Your task to perform on an android device: Go to Google maps Image 0: 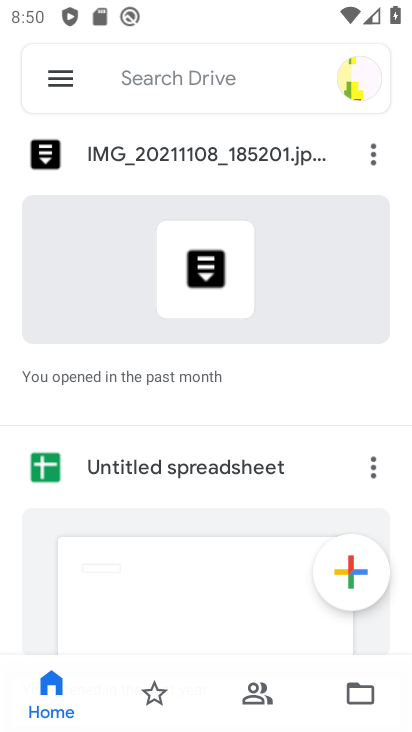
Step 0: press home button
Your task to perform on an android device: Go to Google maps Image 1: 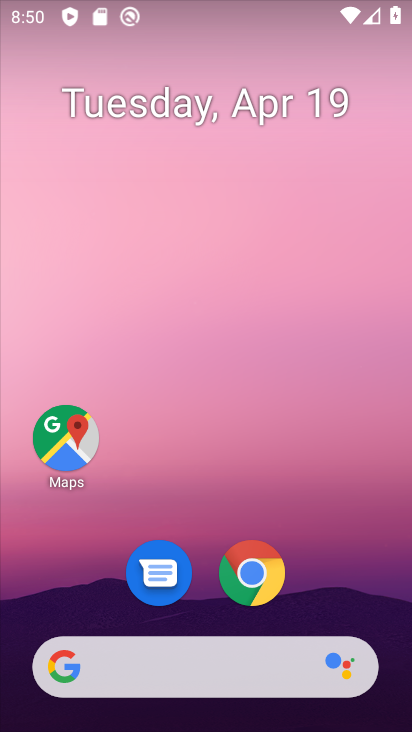
Step 1: click (67, 442)
Your task to perform on an android device: Go to Google maps Image 2: 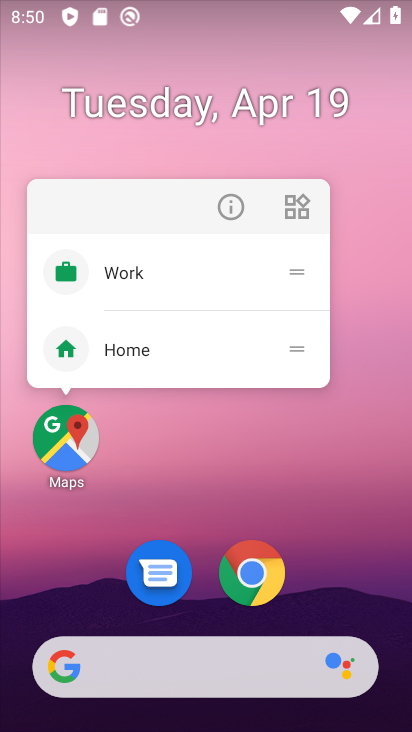
Step 2: click (67, 442)
Your task to perform on an android device: Go to Google maps Image 3: 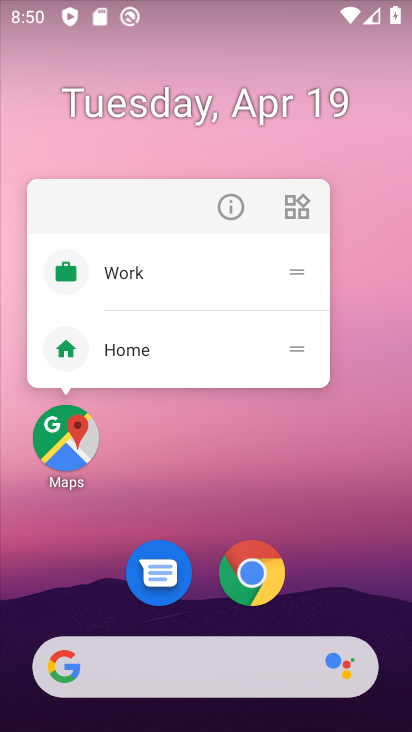
Step 3: click (67, 437)
Your task to perform on an android device: Go to Google maps Image 4: 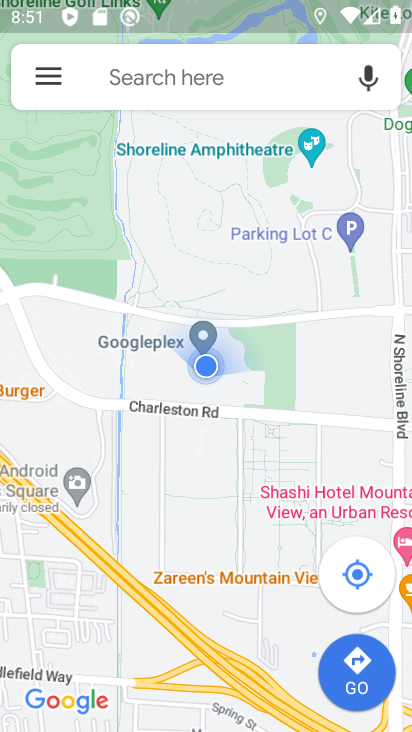
Step 4: task complete